Your task to perform on an android device: open a bookmark in the chrome app Image 0: 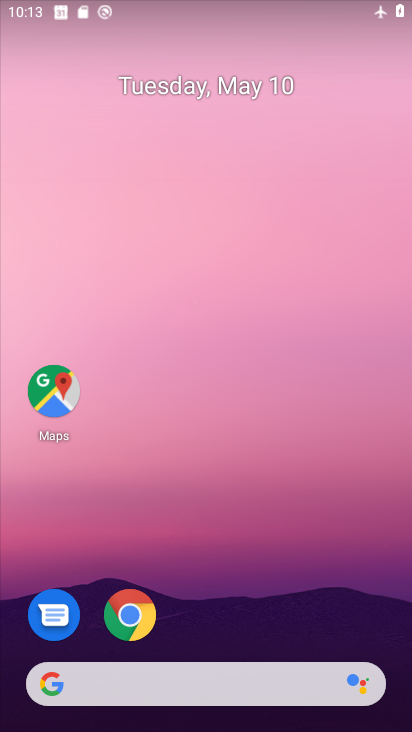
Step 0: drag from (217, 642) to (216, 409)
Your task to perform on an android device: open a bookmark in the chrome app Image 1: 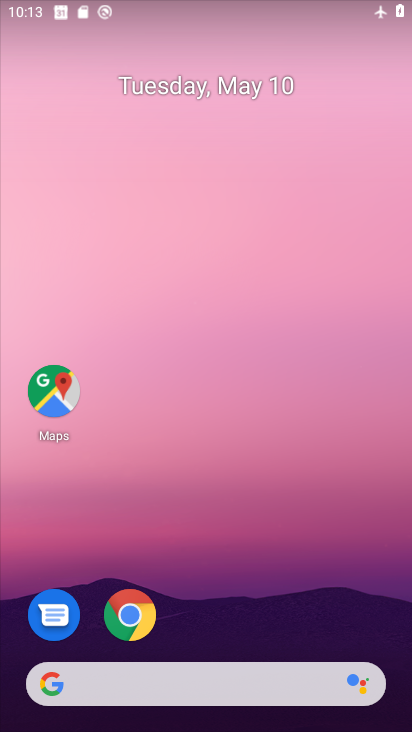
Step 1: drag from (194, 622) to (205, 225)
Your task to perform on an android device: open a bookmark in the chrome app Image 2: 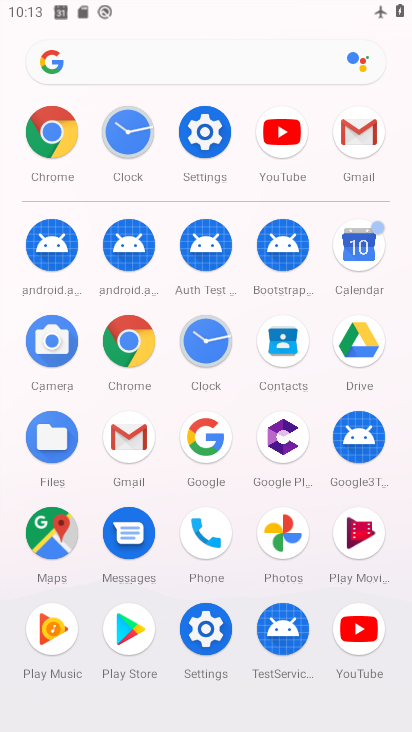
Step 2: drag from (247, 653) to (271, 125)
Your task to perform on an android device: open a bookmark in the chrome app Image 3: 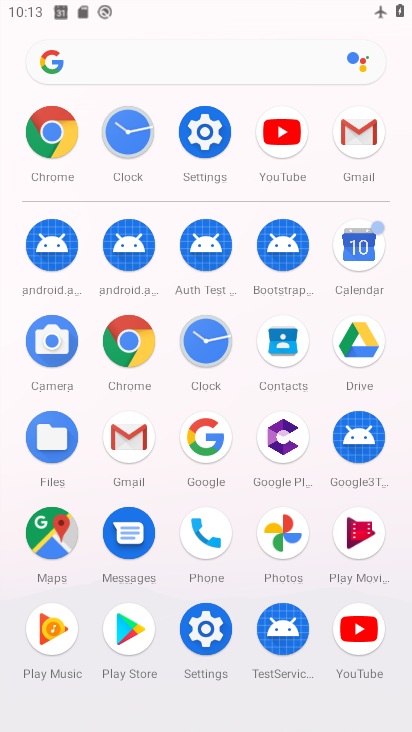
Step 3: click (133, 331)
Your task to perform on an android device: open a bookmark in the chrome app Image 4: 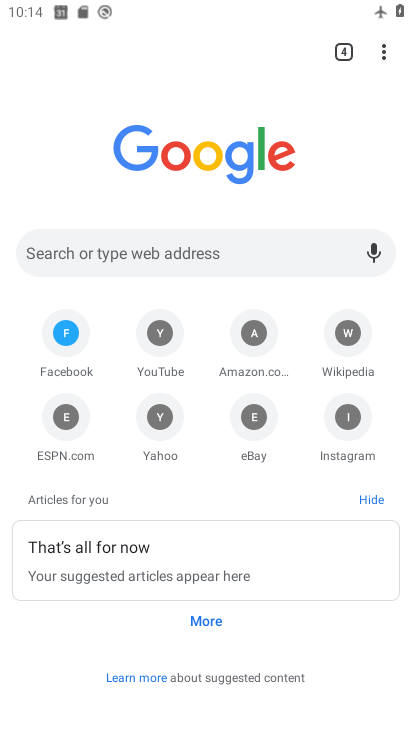
Step 4: click (381, 45)
Your task to perform on an android device: open a bookmark in the chrome app Image 5: 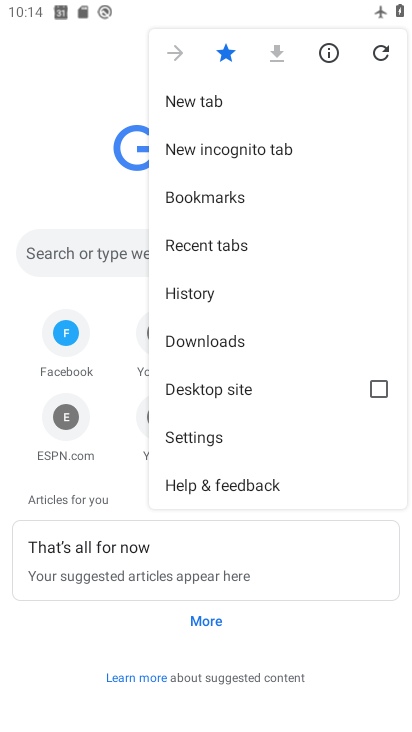
Step 5: click (219, 195)
Your task to perform on an android device: open a bookmark in the chrome app Image 6: 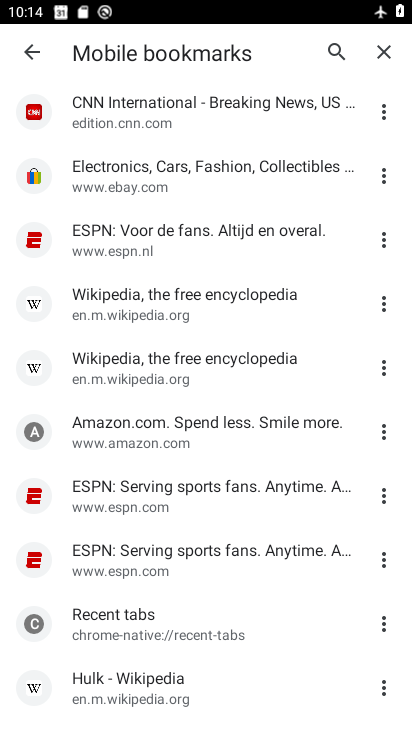
Step 6: task complete